Your task to perform on an android device: Go to Maps Image 0: 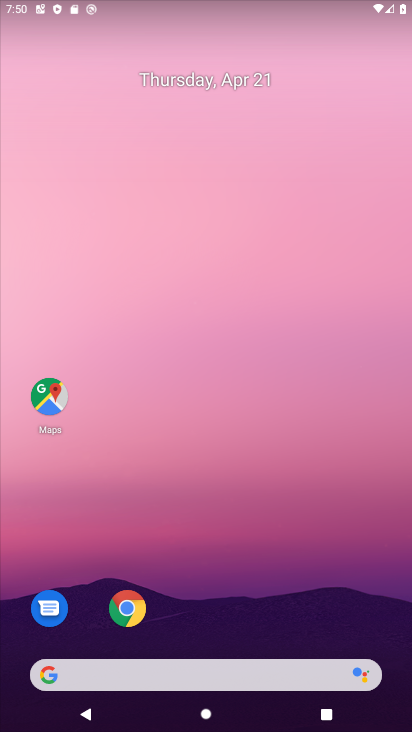
Step 0: click (62, 378)
Your task to perform on an android device: Go to Maps Image 1: 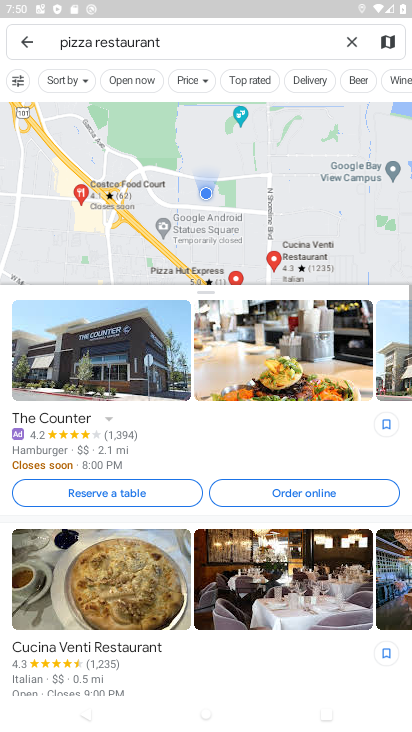
Step 1: task complete